Your task to perform on an android device: Open the calendar and show me this week's events? Image 0: 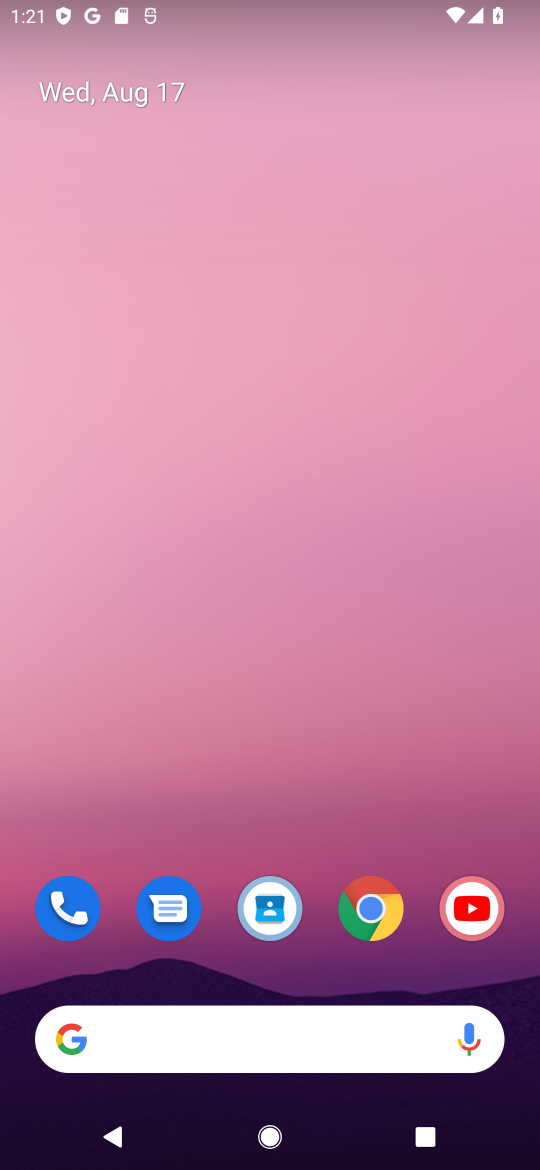
Step 0: press home button
Your task to perform on an android device: Open the calendar and show me this week's events? Image 1: 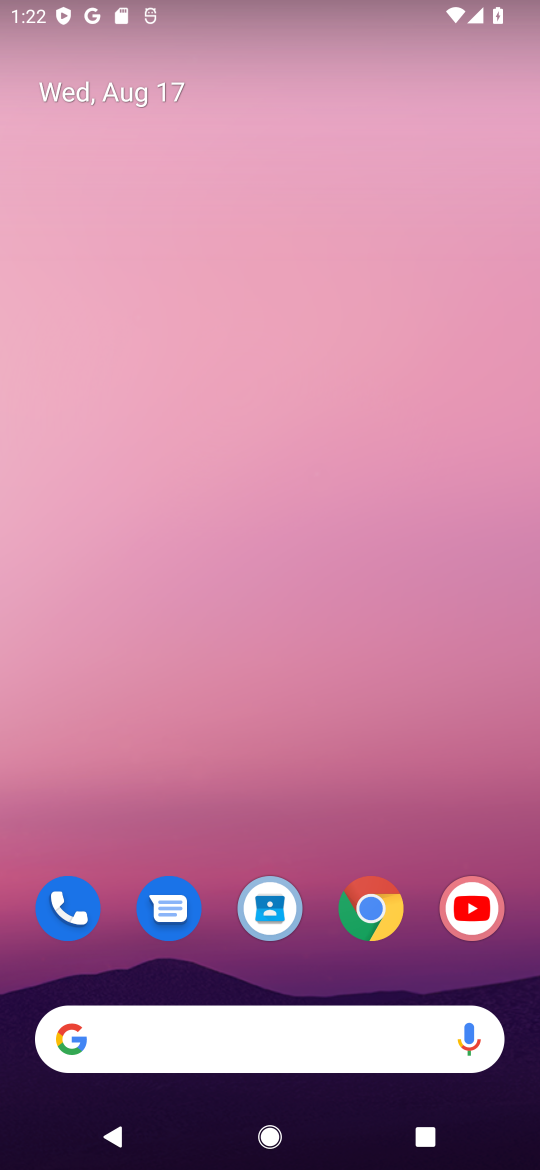
Step 1: drag from (323, 957) to (374, 0)
Your task to perform on an android device: Open the calendar and show me this week's events? Image 2: 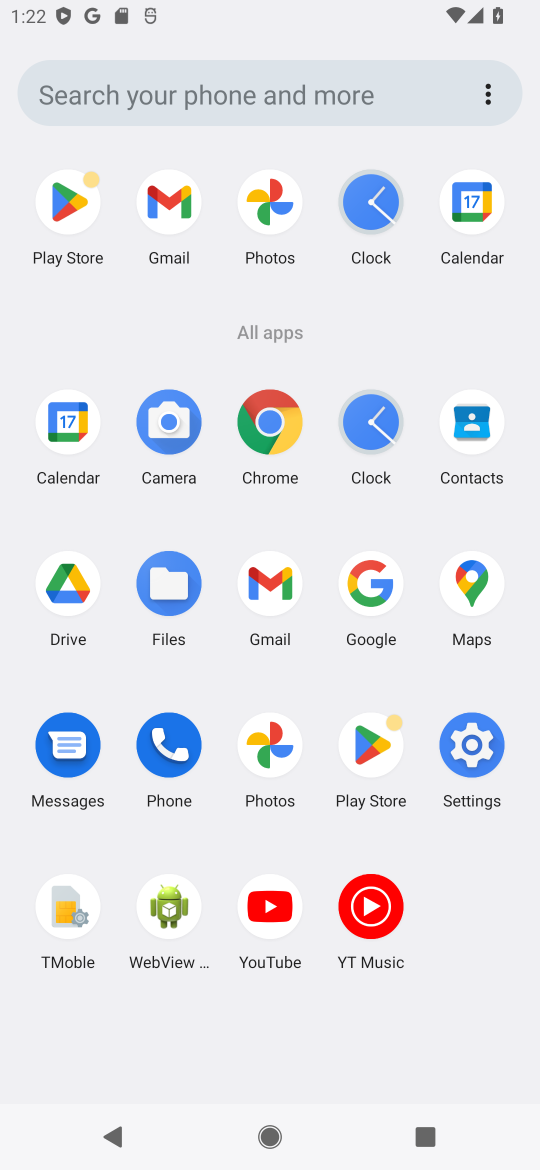
Step 2: click (473, 202)
Your task to perform on an android device: Open the calendar and show me this week's events? Image 3: 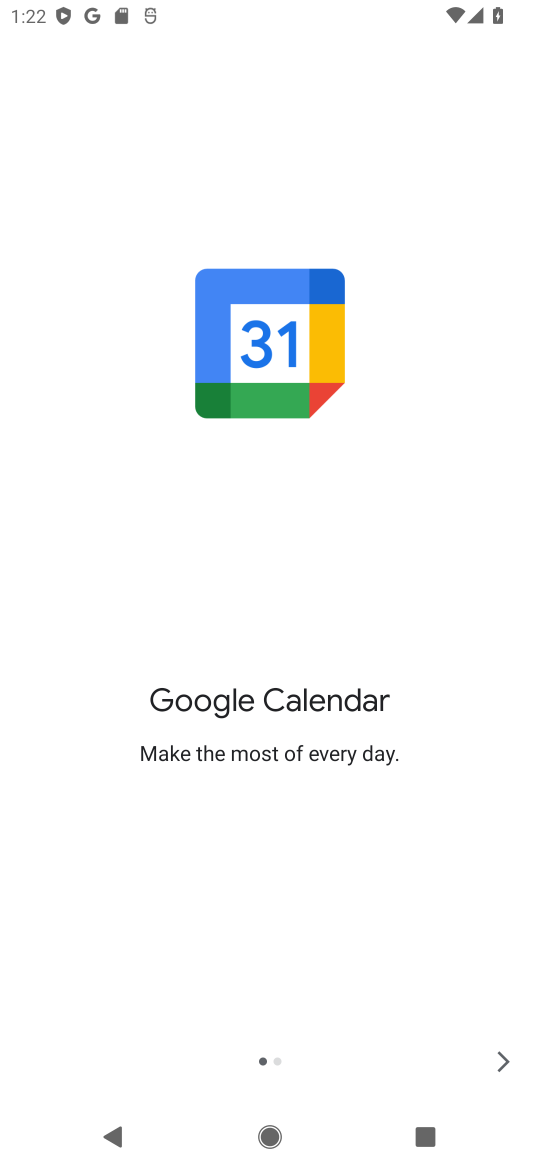
Step 3: click (504, 1066)
Your task to perform on an android device: Open the calendar and show me this week's events? Image 4: 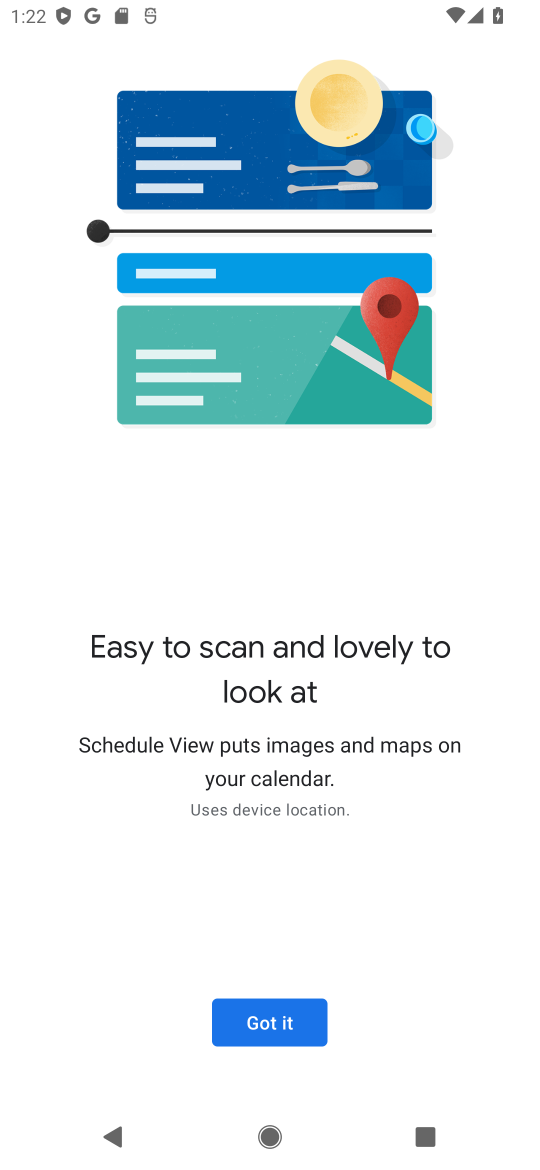
Step 4: click (267, 1007)
Your task to perform on an android device: Open the calendar and show me this week's events? Image 5: 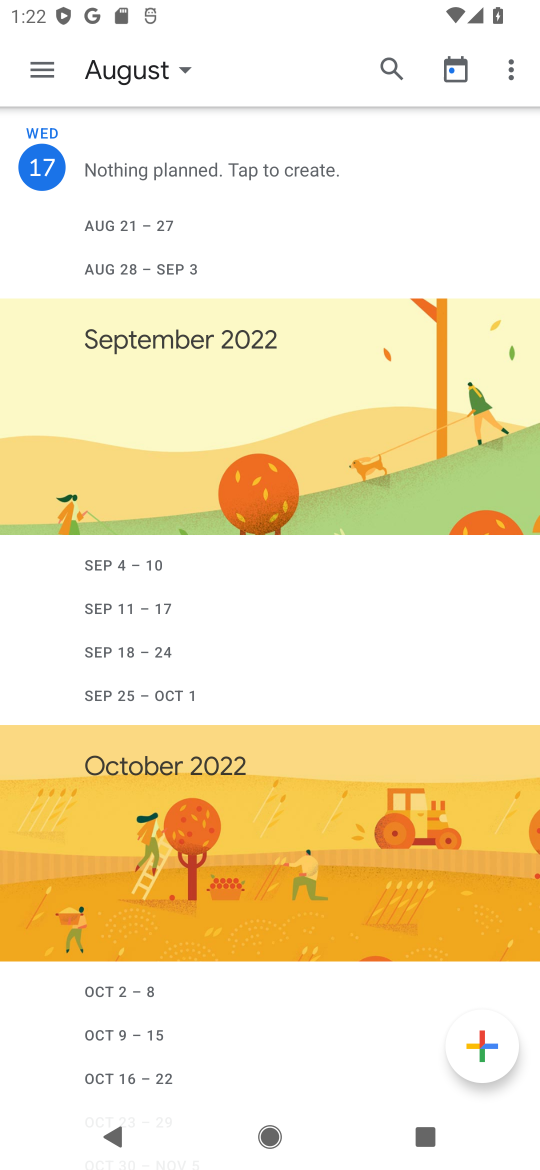
Step 5: click (56, 60)
Your task to perform on an android device: Open the calendar and show me this week's events? Image 6: 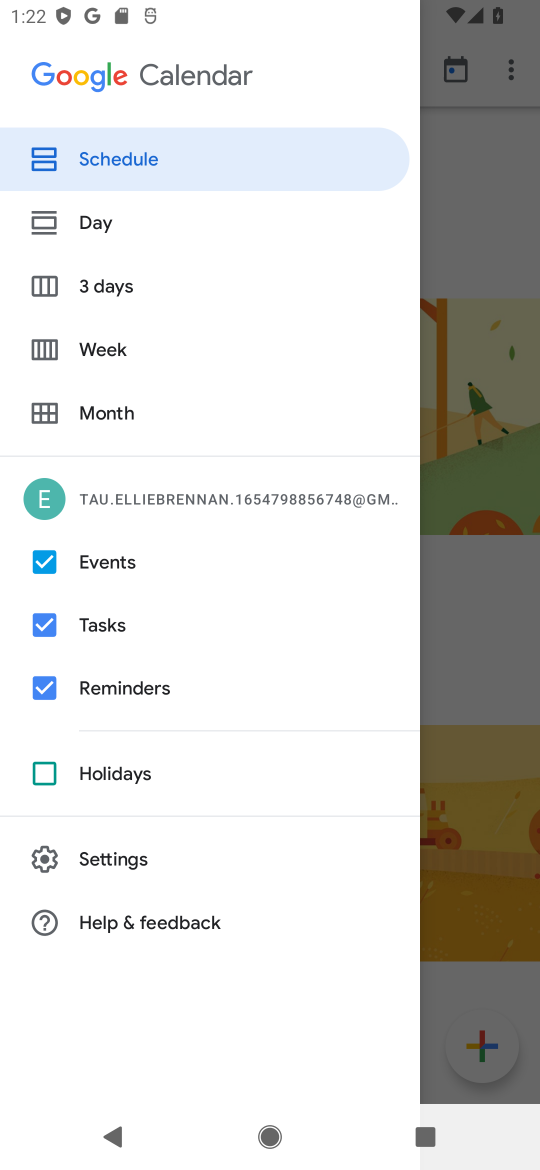
Step 6: click (120, 355)
Your task to perform on an android device: Open the calendar and show me this week's events? Image 7: 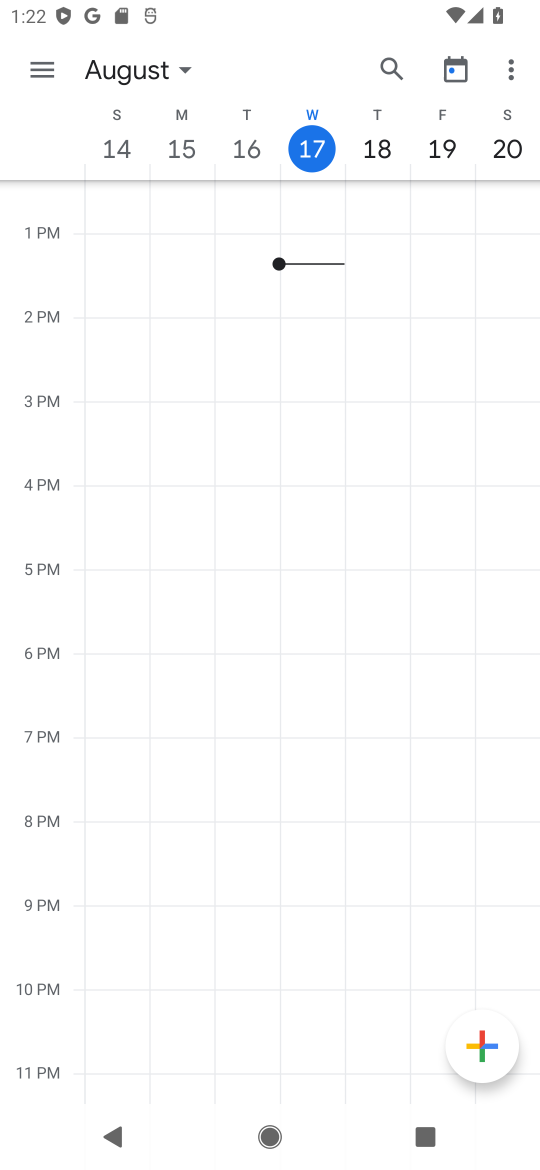
Step 7: task complete